Your task to perform on an android device: Open Google Chrome and click the shortcut for Amazon.com Image 0: 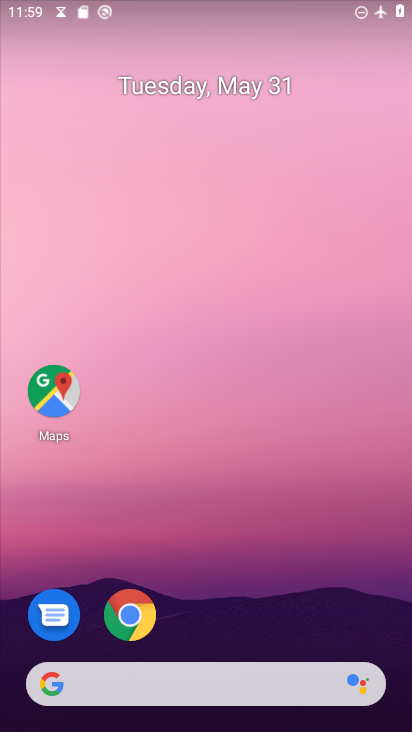
Step 0: drag from (238, 657) to (270, 157)
Your task to perform on an android device: Open Google Chrome and click the shortcut for Amazon.com Image 1: 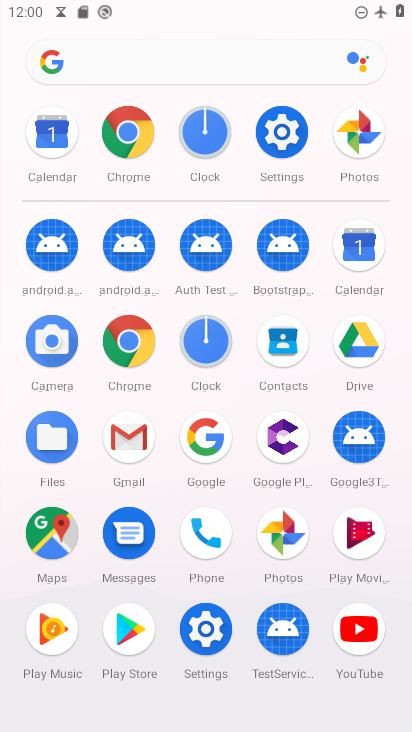
Step 1: click (125, 325)
Your task to perform on an android device: Open Google Chrome and click the shortcut for Amazon.com Image 2: 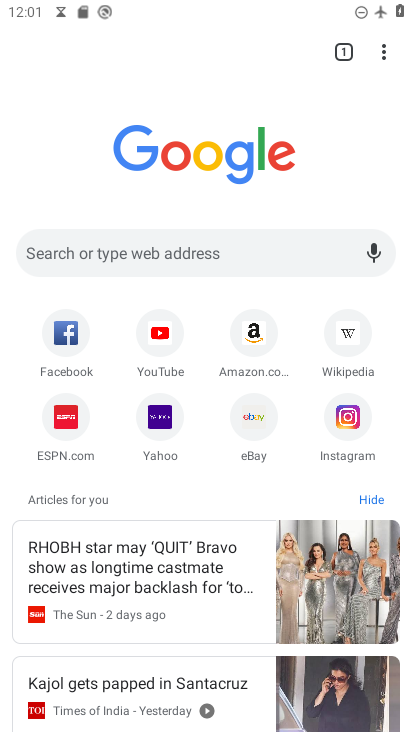
Step 2: click (273, 334)
Your task to perform on an android device: Open Google Chrome and click the shortcut for Amazon.com Image 3: 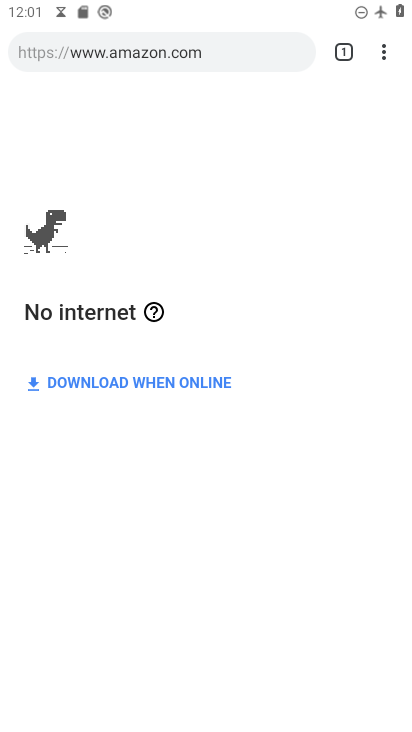
Step 3: task complete